Your task to perform on an android device: Go to battery settings Image 0: 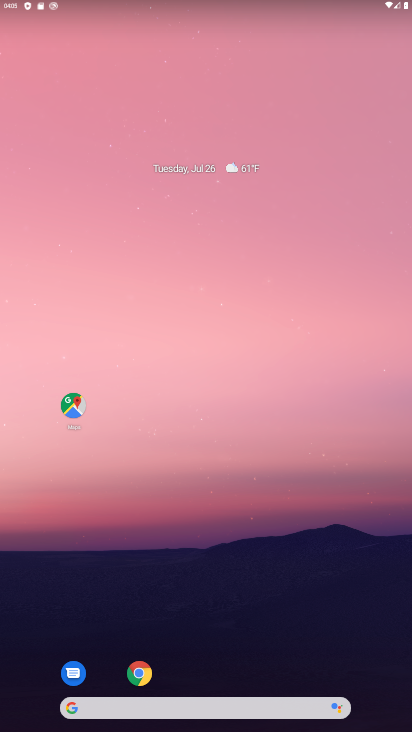
Step 0: drag from (209, 677) to (232, 7)
Your task to perform on an android device: Go to battery settings Image 1: 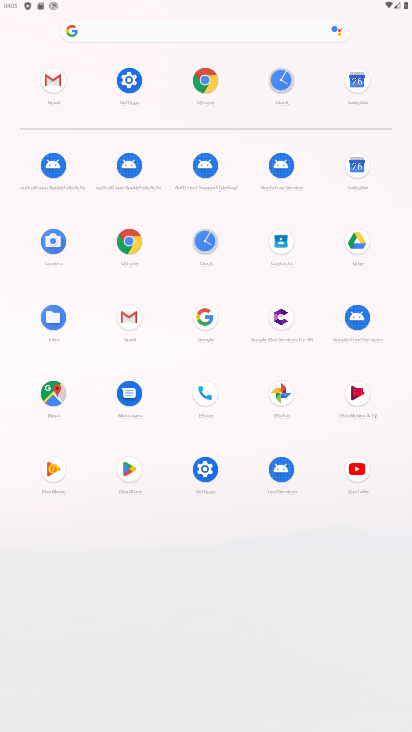
Step 1: click (130, 74)
Your task to perform on an android device: Go to battery settings Image 2: 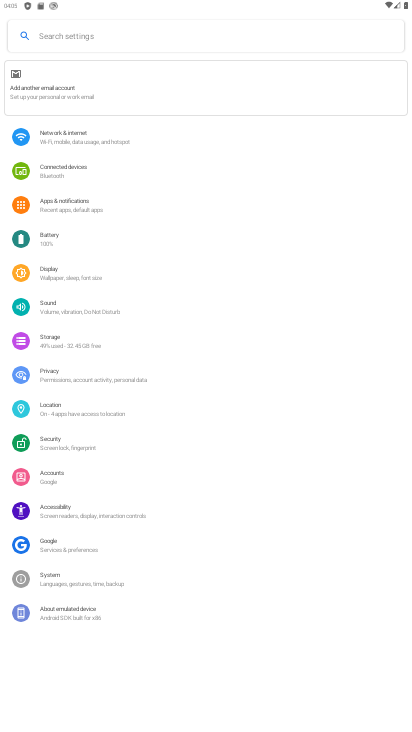
Step 2: click (65, 232)
Your task to perform on an android device: Go to battery settings Image 3: 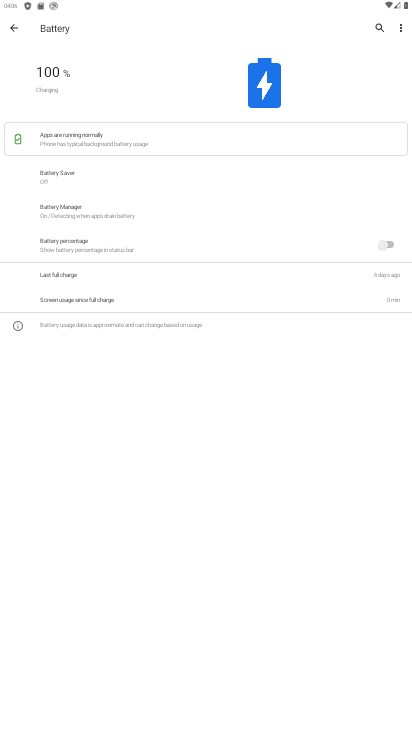
Step 3: task complete